Your task to perform on an android device: What is the recent news? Image 0: 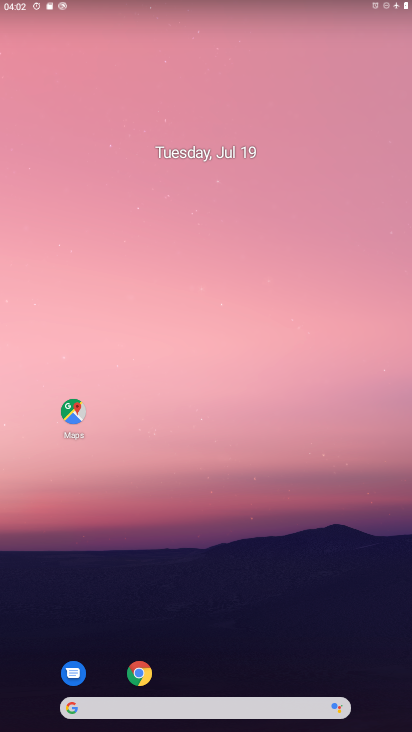
Step 0: click (192, 705)
Your task to perform on an android device: What is the recent news? Image 1: 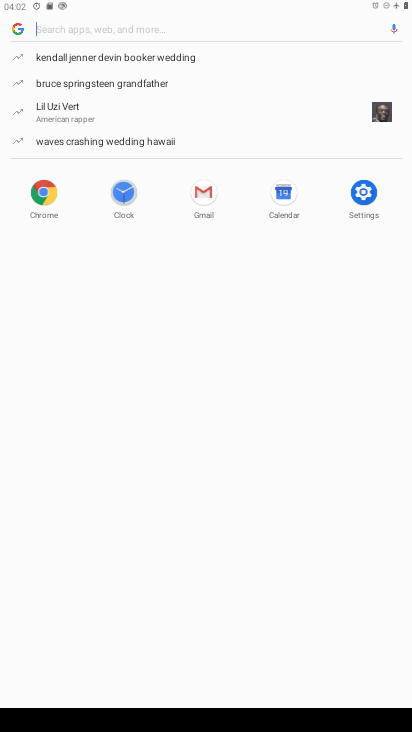
Step 1: type "recent news"
Your task to perform on an android device: What is the recent news? Image 2: 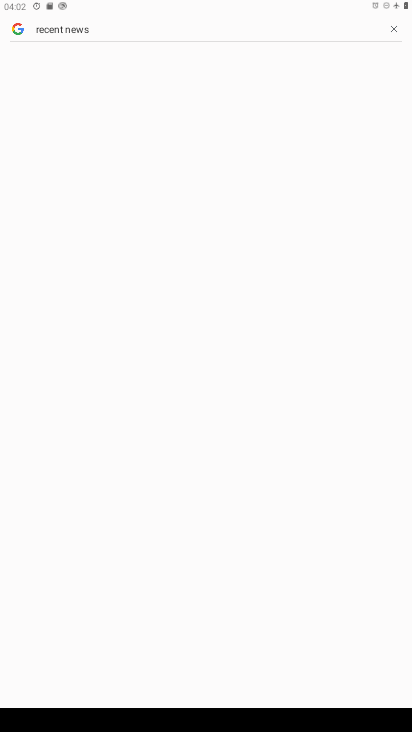
Step 2: click (107, 65)
Your task to perform on an android device: What is the recent news? Image 3: 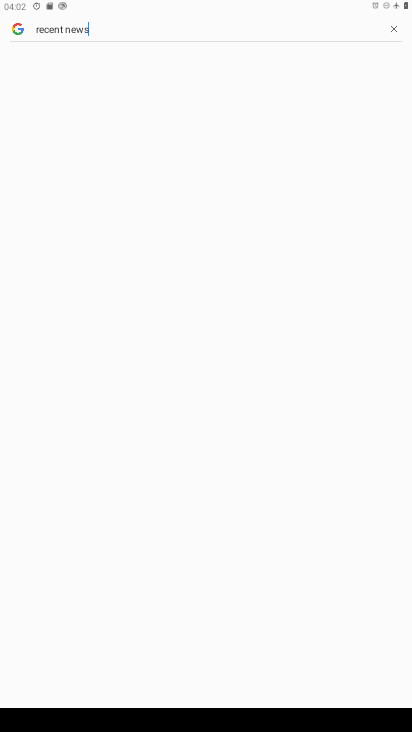
Step 3: task complete